Your task to perform on an android device: Go to Reddit.com Image 0: 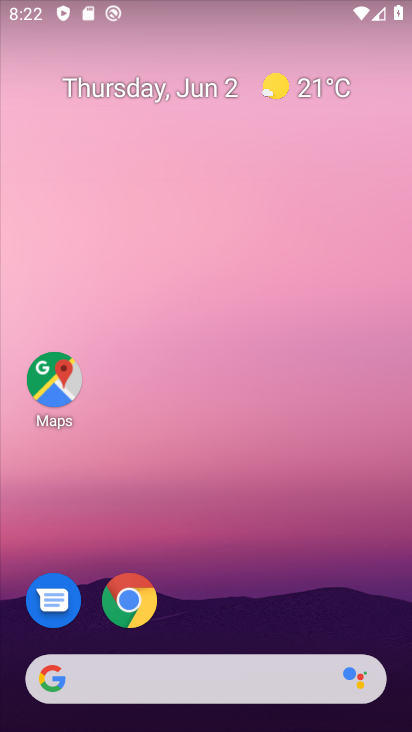
Step 0: click (148, 611)
Your task to perform on an android device: Go to Reddit.com Image 1: 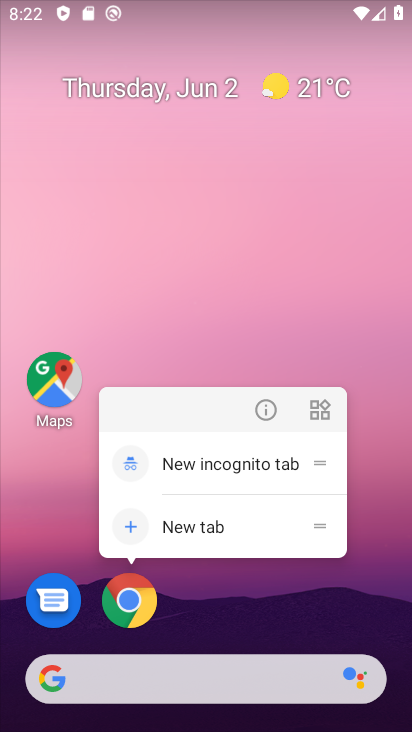
Step 1: click (135, 618)
Your task to perform on an android device: Go to Reddit.com Image 2: 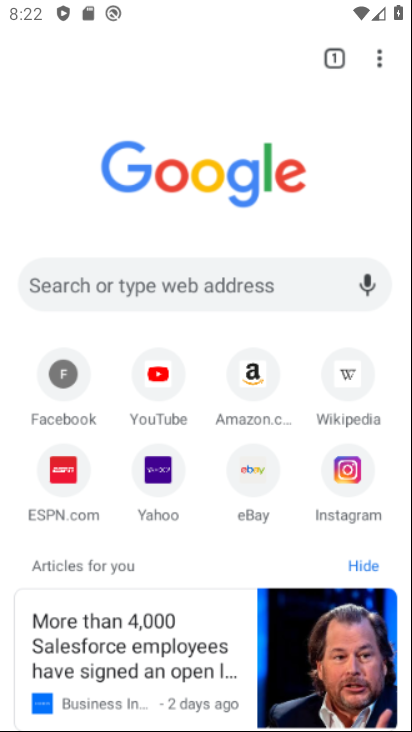
Step 2: click (181, 288)
Your task to perform on an android device: Go to Reddit.com Image 3: 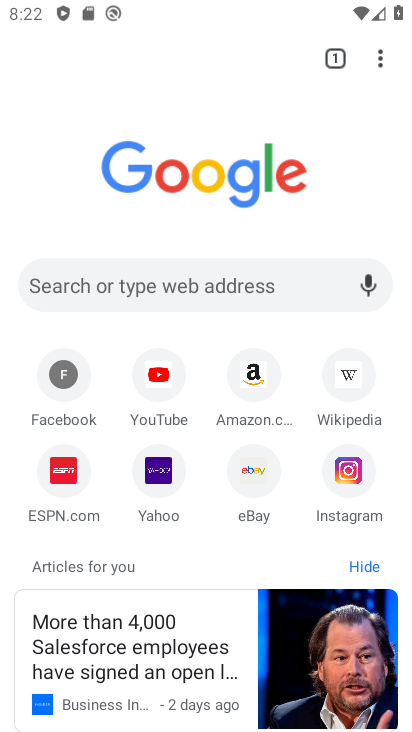
Step 3: type "Reddit.com"
Your task to perform on an android device: Go to Reddit.com Image 4: 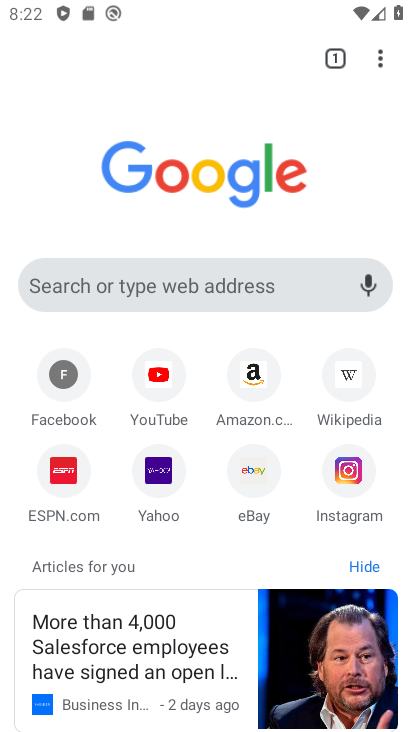
Step 4: click (247, 294)
Your task to perform on an android device: Go to Reddit.com Image 5: 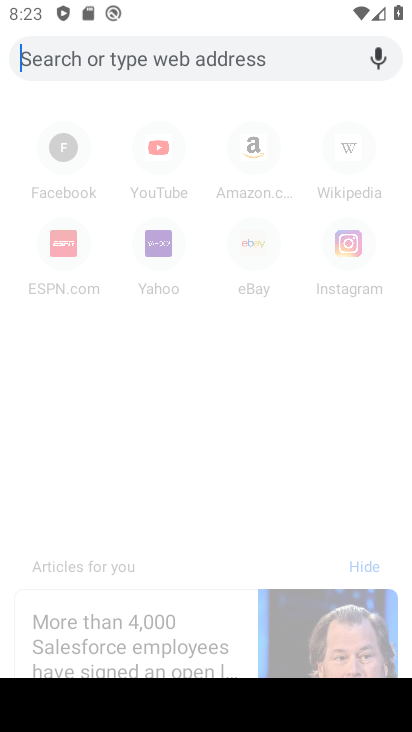
Step 5: type "Reddit.com"
Your task to perform on an android device: Go to Reddit.com Image 6: 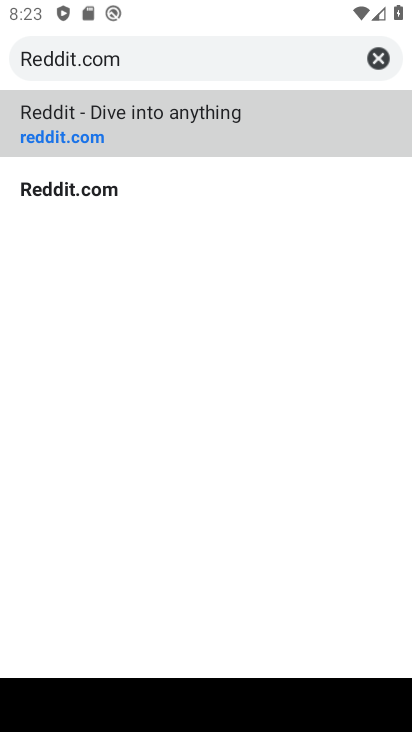
Step 6: click (199, 129)
Your task to perform on an android device: Go to Reddit.com Image 7: 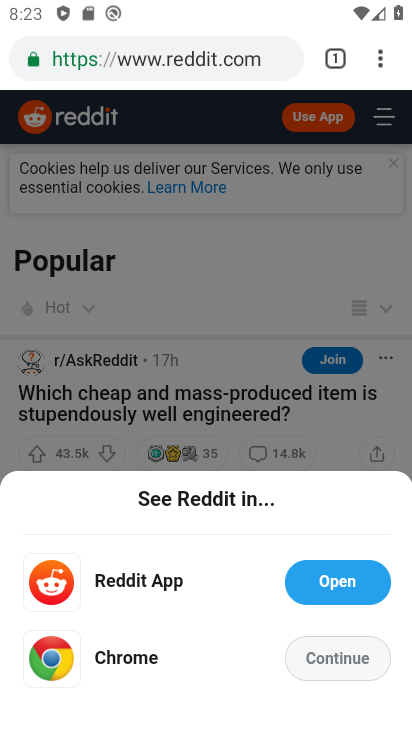
Step 7: click (327, 669)
Your task to perform on an android device: Go to Reddit.com Image 8: 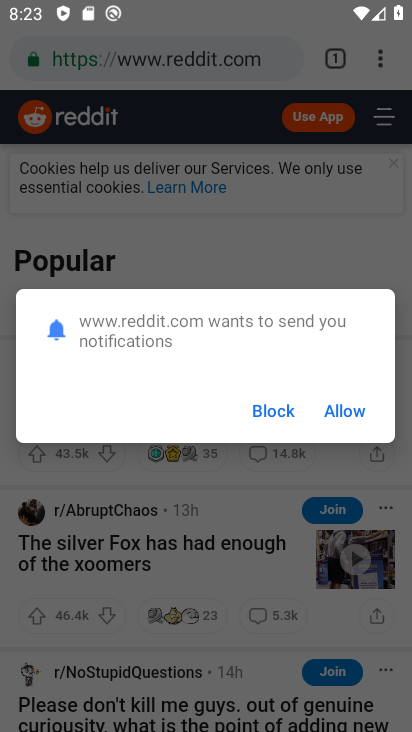
Step 8: task complete